Your task to perform on an android device: Open ESPN.com Image 0: 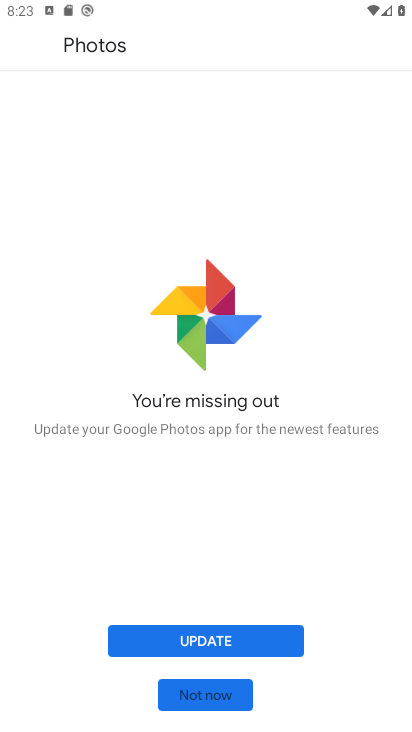
Step 0: press home button
Your task to perform on an android device: Open ESPN.com Image 1: 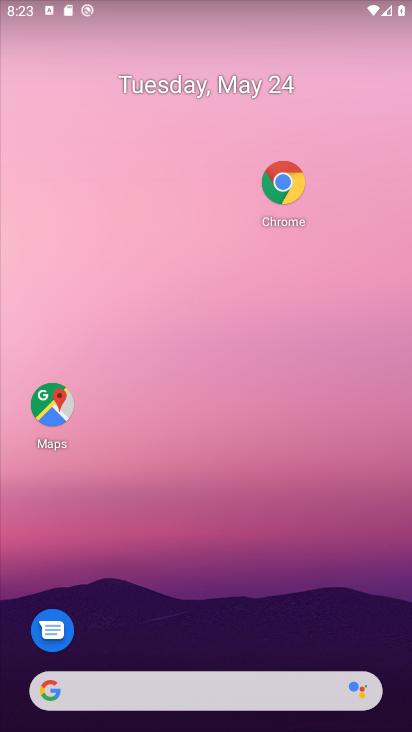
Step 1: drag from (208, 701) to (165, 116)
Your task to perform on an android device: Open ESPN.com Image 2: 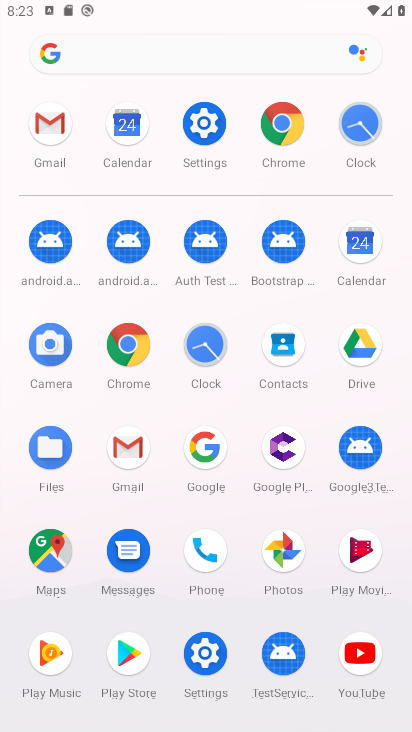
Step 2: click (282, 129)
Your task to perform on an android device: Open ESPN.com Image 3: 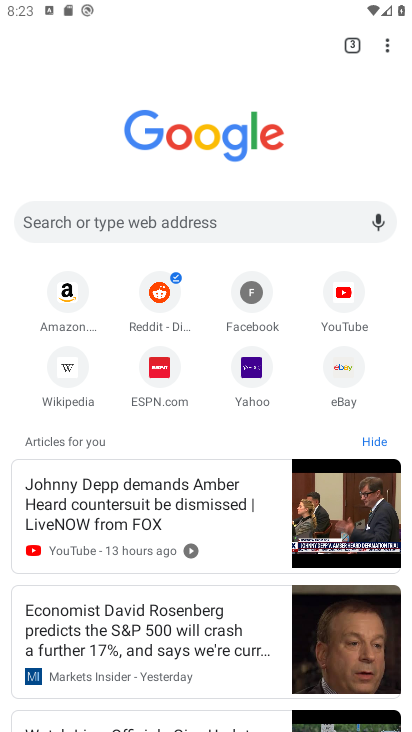
Step 3: click (167, 384)
Your task to perform on an android device: Open ESPN.com Image 4: 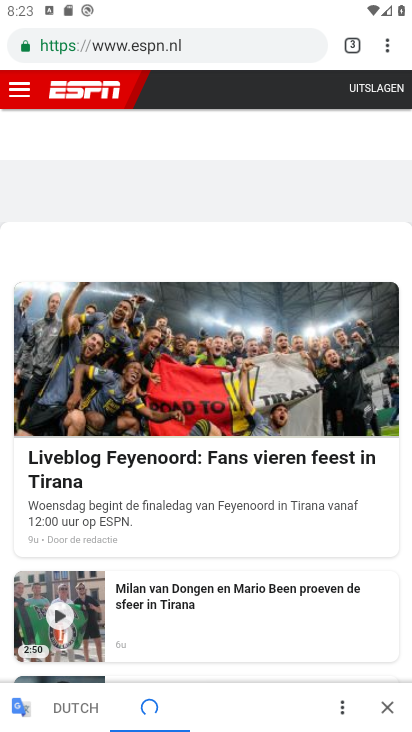
Step 4: task complete